Your task to perform on an android device: Open settings Image 0: 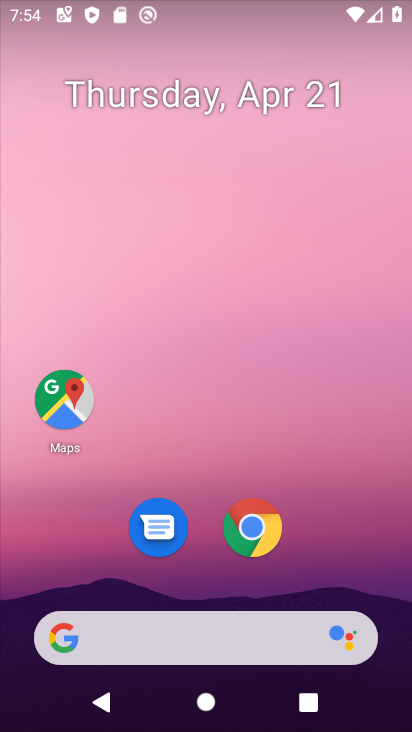
Step 0: drag from (240, 560) to (283, 158)
Your task to perform on an android device: Open settings Image 1: 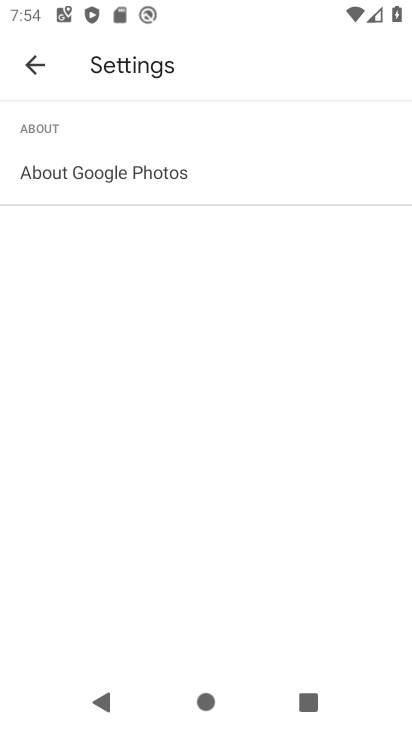
Step 1: press home button
Your task to perform on an android device: Open settings Image 2: 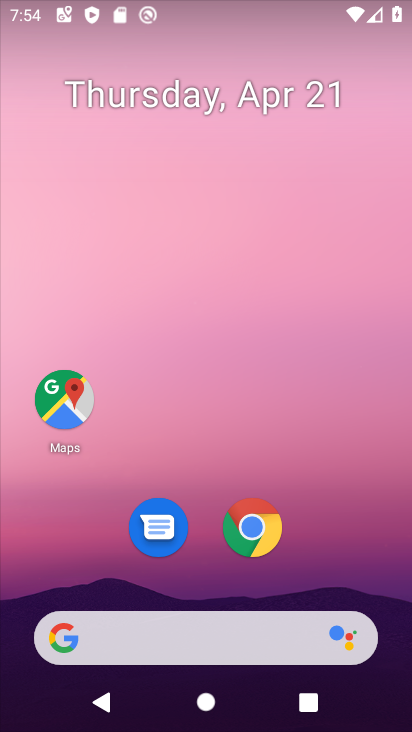
Step 2: drag from (269, 436) to (366, 112)
Your task to perform on an android device: Open settings Image 3: 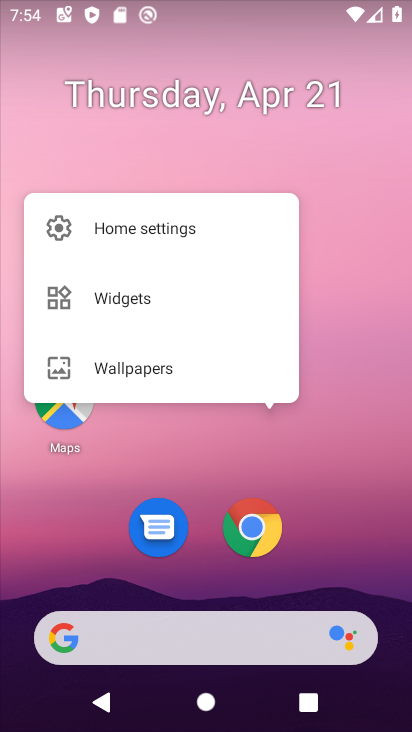
Step 3: click (384, 331)
Your task to perform on an android device: Open settings Image 4: 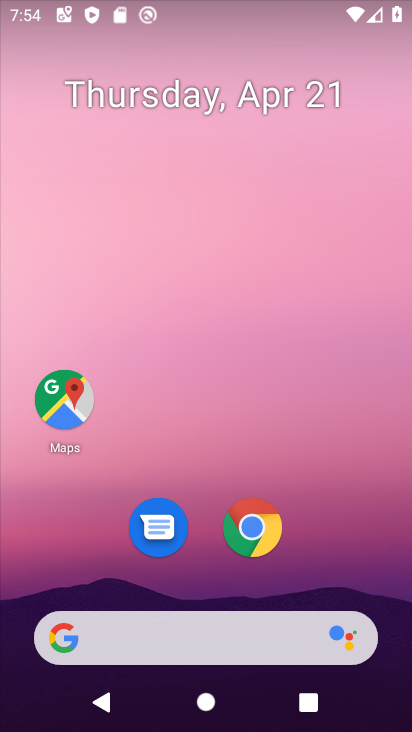
Step 4: drag from (317, 635) to (411, 139)
Your task to perform on an android device: Open settings Image 5: 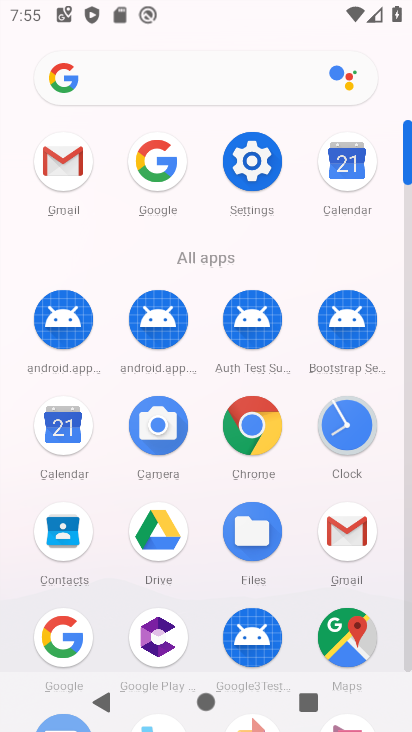
Step 5: click (272, 178)
Your task to perform on an android device: Open settings Image 6: 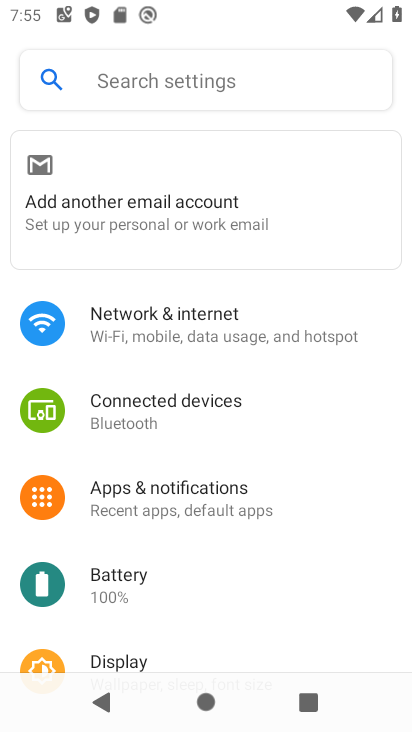
Step 6: task complete